Your task to perform on an android device: Open calendar and show me the third week of next month Image 0: 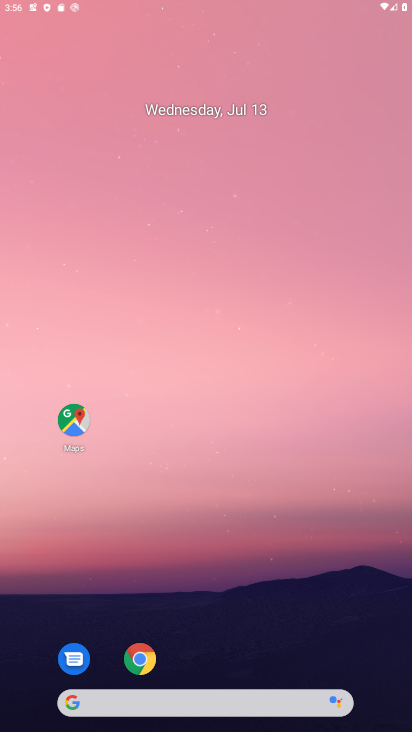
Step 0: click (207, 700)
Your task to perform on an android device: Open calendar and show me the third week of next month Image 1: 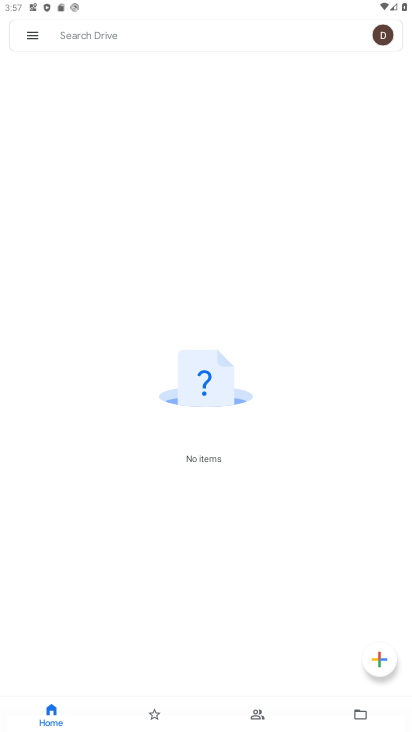
Step 1: press home button
Your task to perform on an android device: Open calendar and show me the third week of next month Image 2: 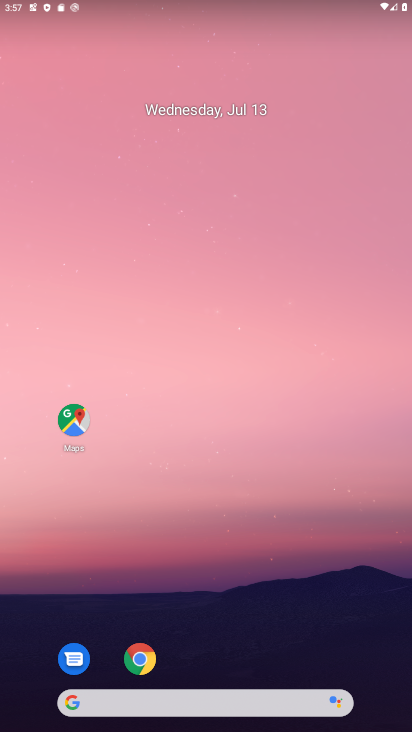
Step 2: drag from (210, 668) to (262, 6)
Your task to perform on an android device: Open calendar and show me the third week of next month Image 3: 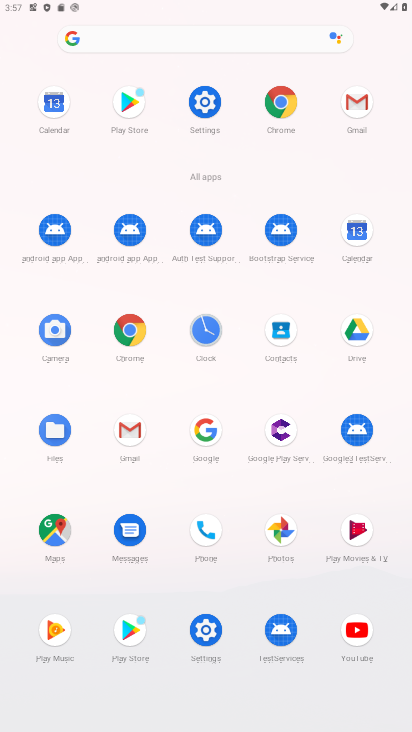
Step 3: click (360, 227)
Your task to perform on an android device: Open calendar and show me the third week of next month Image 4: 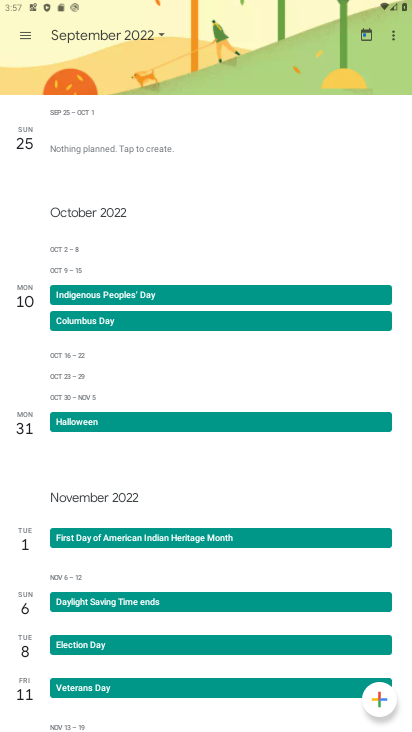
Step 4: click (163, 31)
Your task to perform on an android device: Open calendar and show me the third week of next month Image 5: 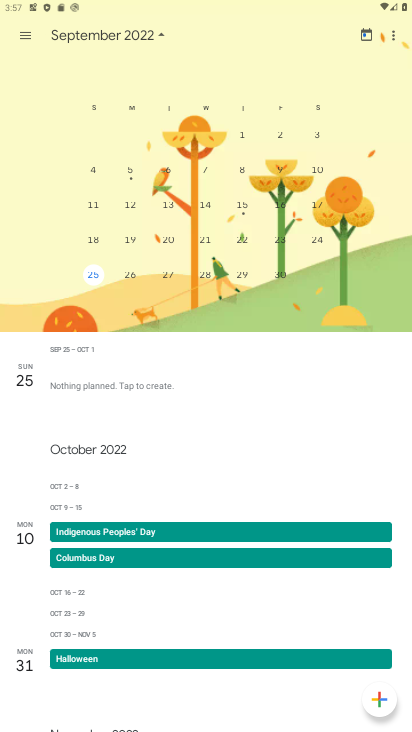
Step 5: click (164, 29)
Your task to perform on an android device: Open calendar and show me the third week of next month Image 6: 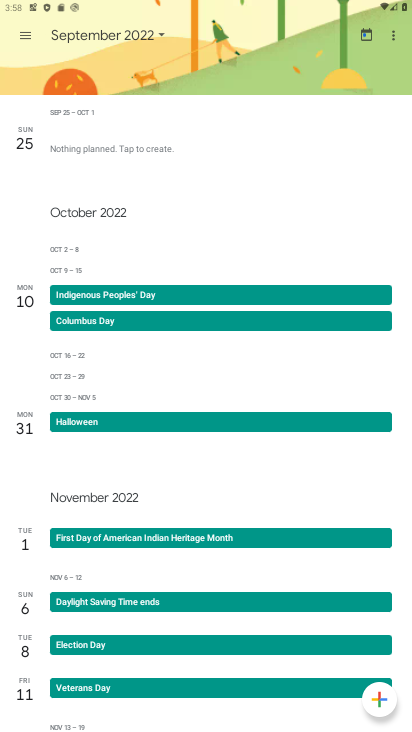
Step 6: click (154, 33)
Your task to perform on an android device: Open calendar and show me the third week of next month Image 7: 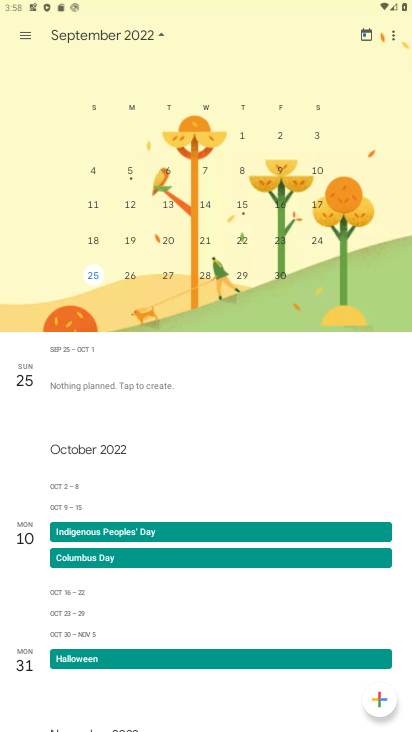
Step 7: drag from (66, 197) to (409, 182)
Your task to perform on an android device: Open calendar and show me the third week of next month Image 8: 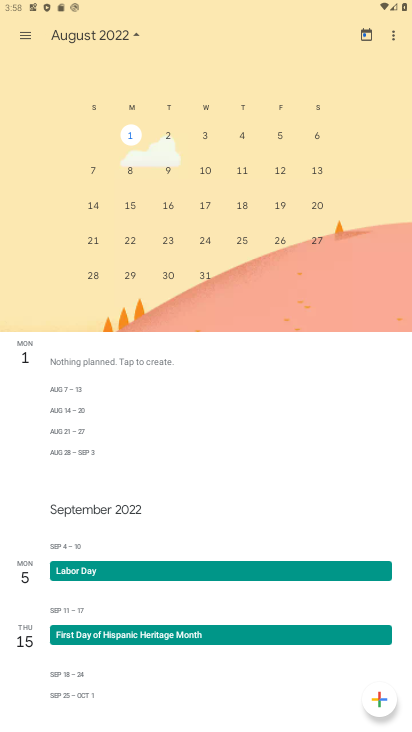
Step 8: click (89, 203)
Your task to perform on an android device: Open calendar and show me the third week of next month Image 9: 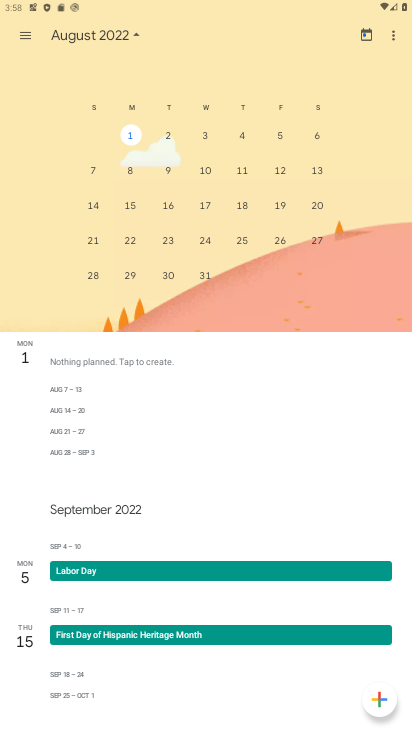
Step 9: click (91, 200)
Your task to perform on an android device: Open calendar and show me the third week of next month Image 10: 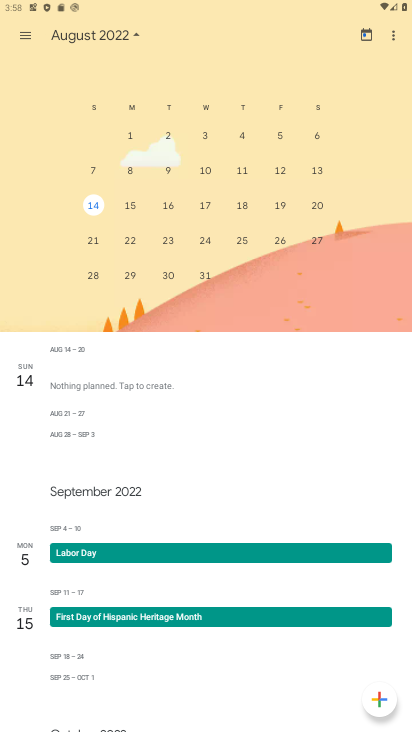
Step 10: task complete